Your task to perform on an android device: delete a single message in the gmail app Image 0: 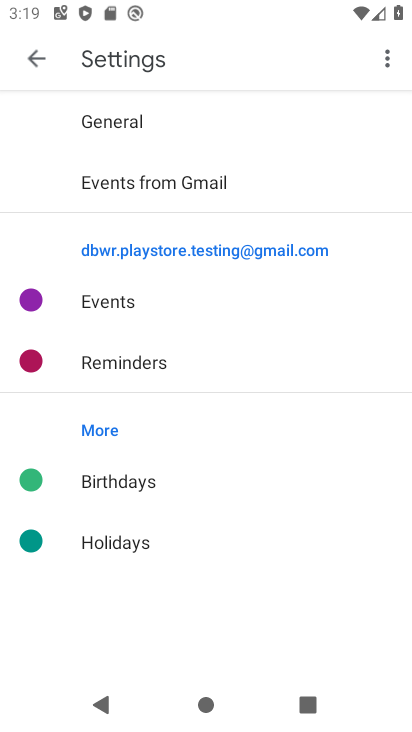
Step 0: press home button
Your task to perform on an android device: delete a single message in the gmail app Image 1: 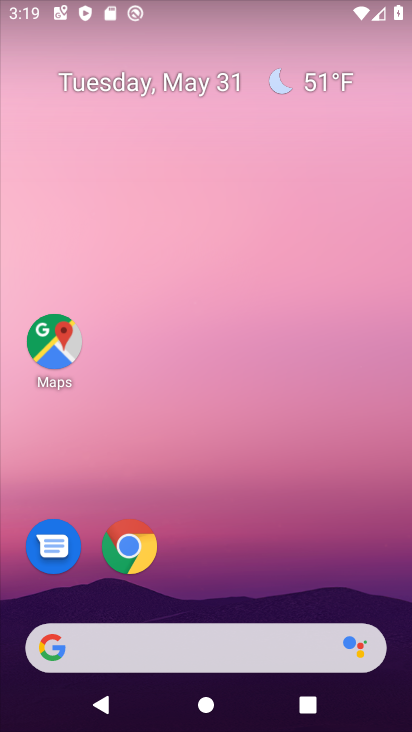
Step 1: drag from (190, 585) to (253, 79)
Your task to perform on an android device: delete a single message in the gmail app Image 2: 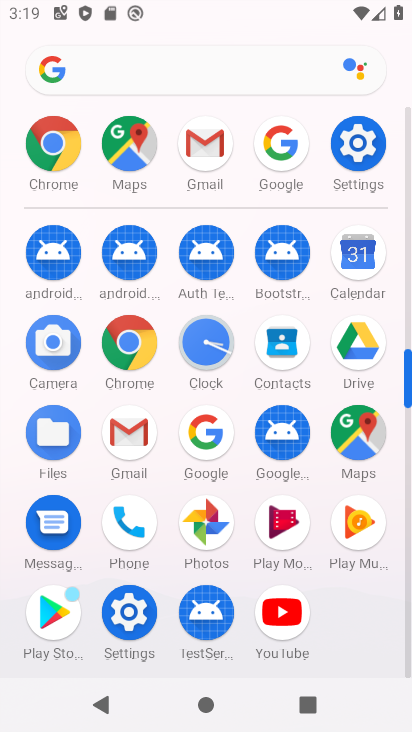
Step 2: click (127, 441)
Your task to perform on an android device: delete a single message in the gmail app Image 3: 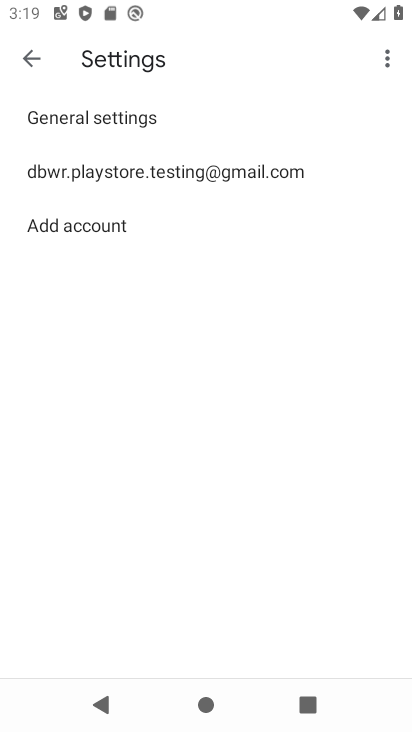
Step 3: click (30, 62)
Your task to perform on an android device: delete a single message in the gmail app Image 4: 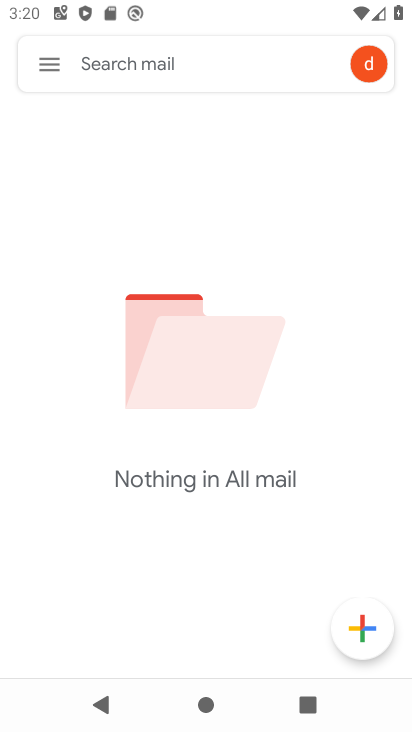
Step 4: task complete